Your task to perform on an android device: Open Maps and search for coffee Image 0: 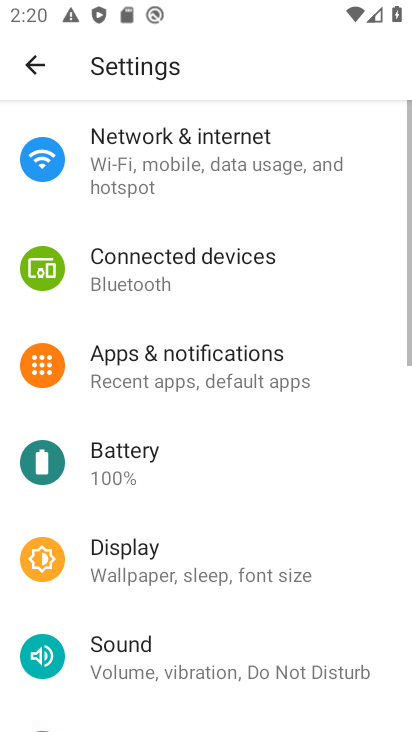
Step 0: press home button
Your task to perform on an android device: Open Maps and search for coffee Image 1: 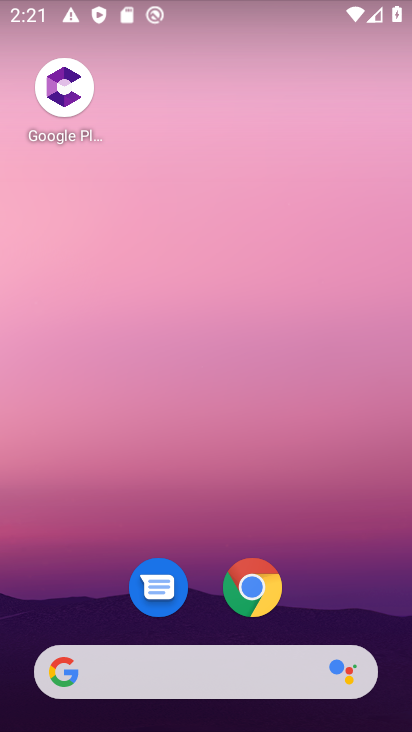
Step 1: drag from (8, 581) to (202, 74)
Your task to perform on an android device: Open Maps and search for coffee Image 2: 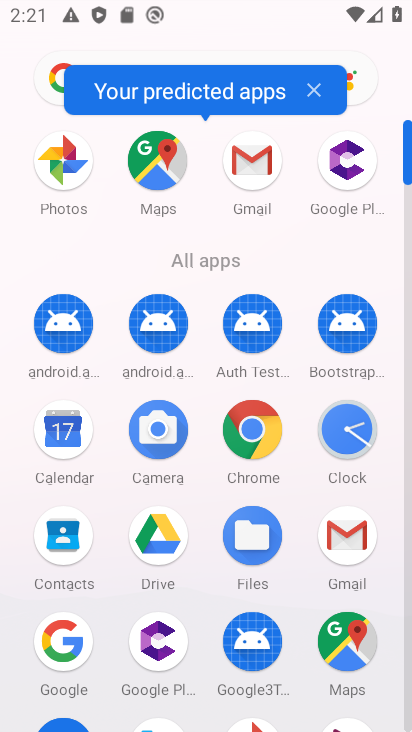
Step 2: drag from (71, 462) to (153, 189)
Your task to perform on an android device: Open Maps and search for coffee Image 3: 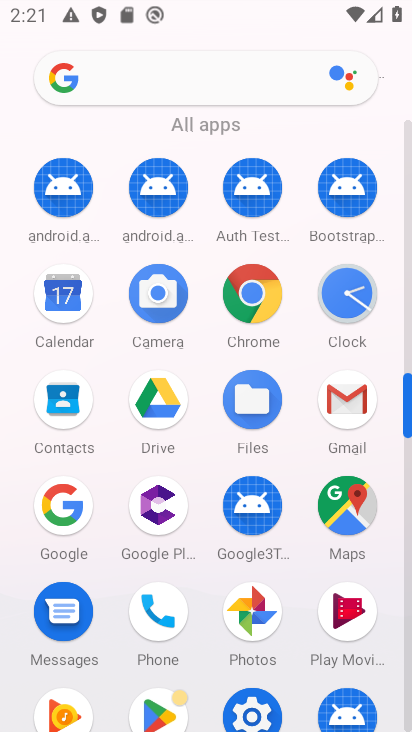
Step 3: click (342, 509)
Your task to perform on an android device: Open Maps and search for coffee Image 4: 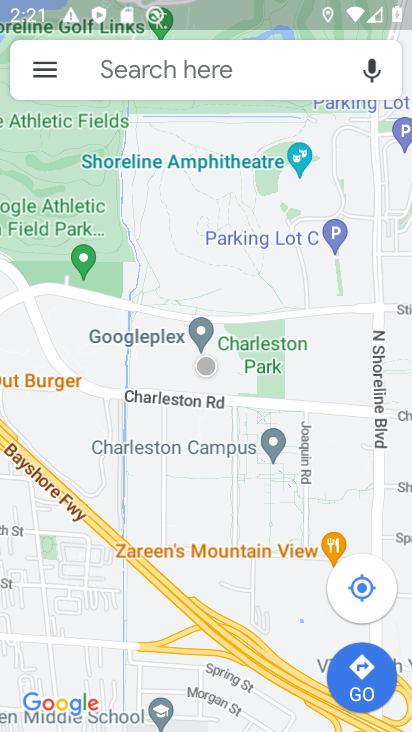
Step 4: click (226, 70)
Your task to perform on an android device: Open Maps and search for coffee Image 5: 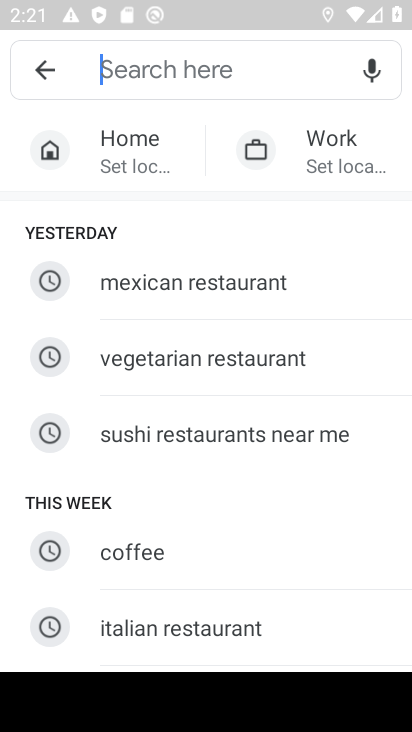
Step 5: click (143, 547)
Your task to perform on an android device: Open Maps and search for coffee Image 6: 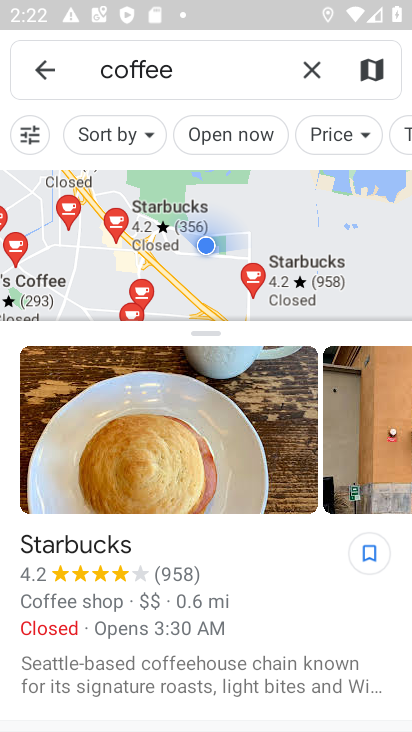
Step 6: task complete